Your task to perform on an android device: What's the news in Taiwan? Image 0: 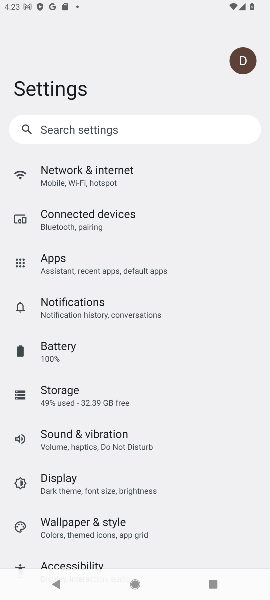
Step 0: press home button
Your task to perform on an android device: What's the news in Taiwan? Image 1: 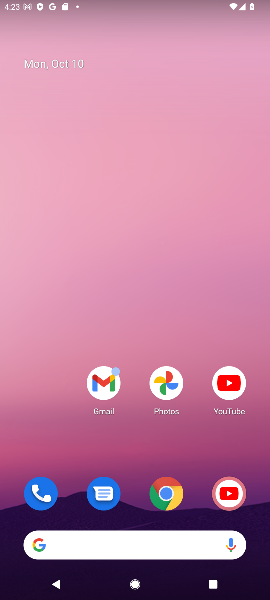
Step 1: click (73, 548)
Your task to perform on an android device: What's the news in Taiwan? Image 2: 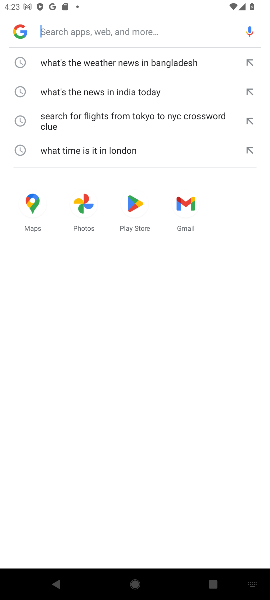
Step 2: type "the news in Taiwan"
Your task to perform on an android device: What's the news in Taiwan? Image 3: 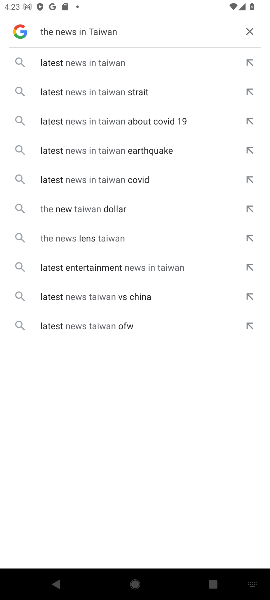
Step 3: click (68, 61)
Your task to perform on an android device: What's the news in Taiwan? Image 4: 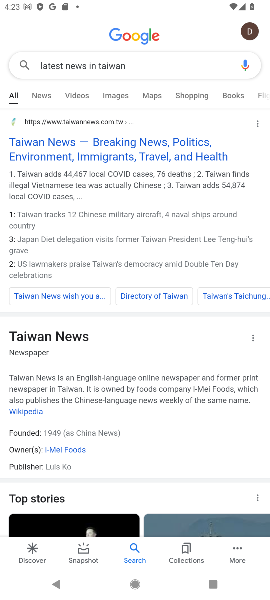
Step 4: click (54, 158)
Your task to perform on an android device: What's the news in Taiwan? Image 5: 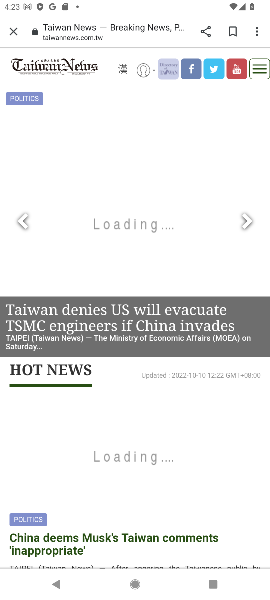
Step 5: task complete